Your task to perform on an android device: What's on my calendar today? Image 0: 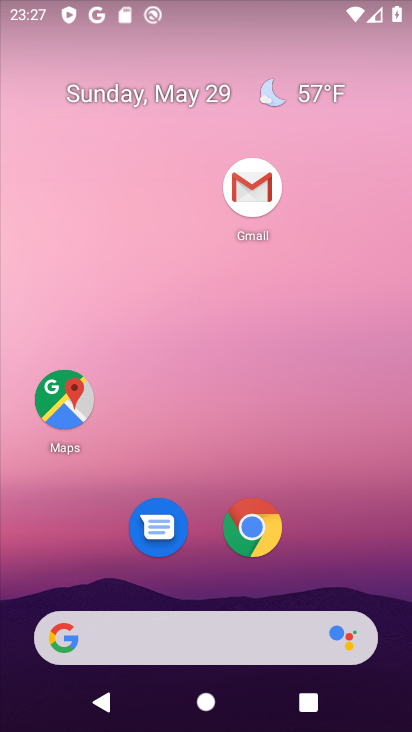
Step 0: drag from (323, 555) to (244, 79)
Your task to perform on an android device: What's on my calendar today? Image 1: 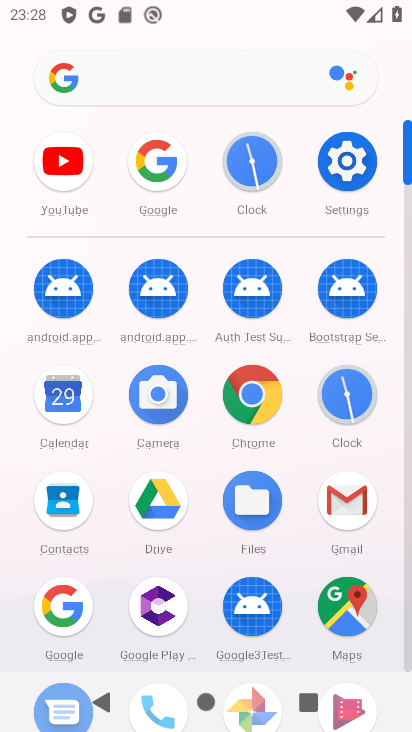
Step 1: click (66, 396)
Your task to perform on an android device: What's on my calendar today? Image 2: 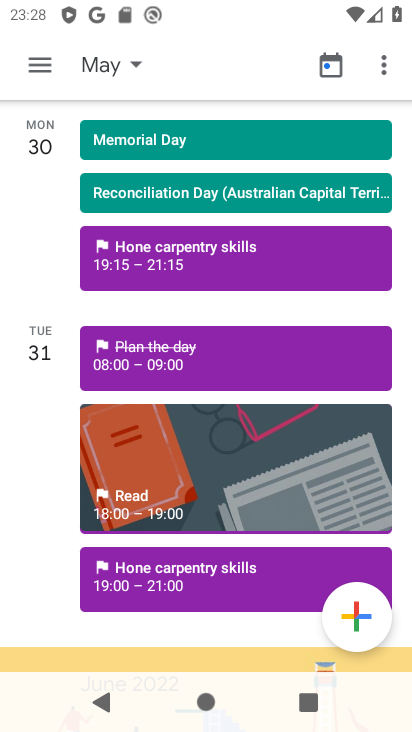
Step 2: click (338, 67)
Your task to perform on an android device: What's on my calendar today? Image 3: 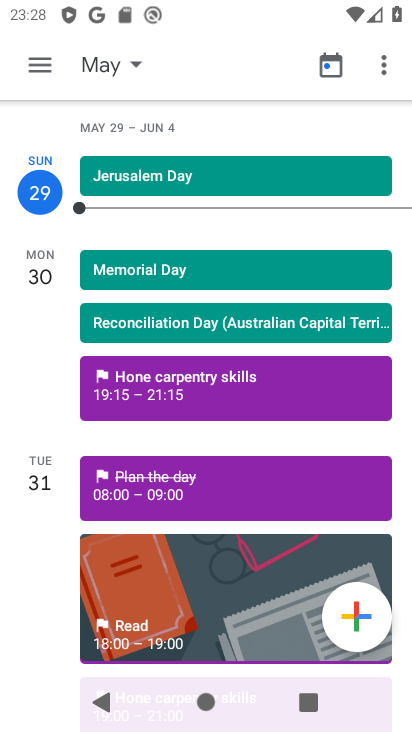
Step 3: click (168, 173)
Your task to perform on an android device: What's on my calendar today? Image 4: 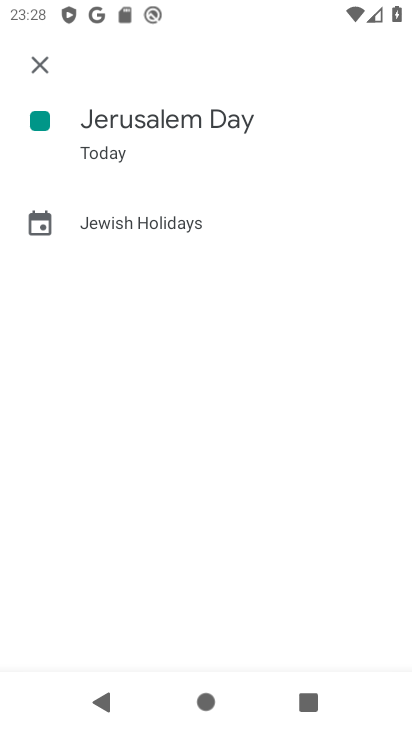
Step 4: click (168, 173)
Your task to perform on an android device: What's on my calendar today? Image 5: 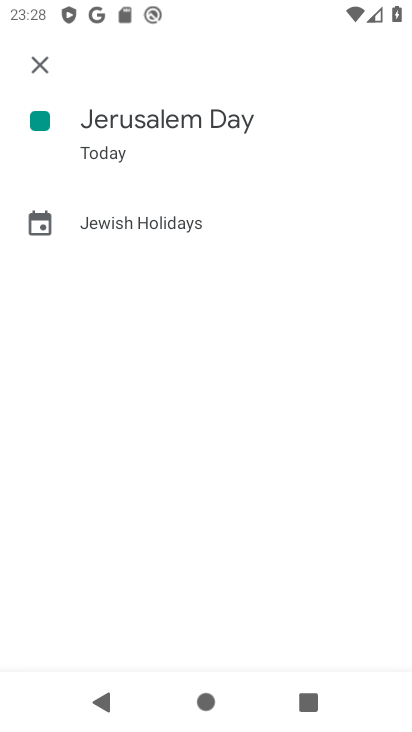
Step 5: task complete